Your task to perform on an android device: clear all cookies in the chrome app Image 0: 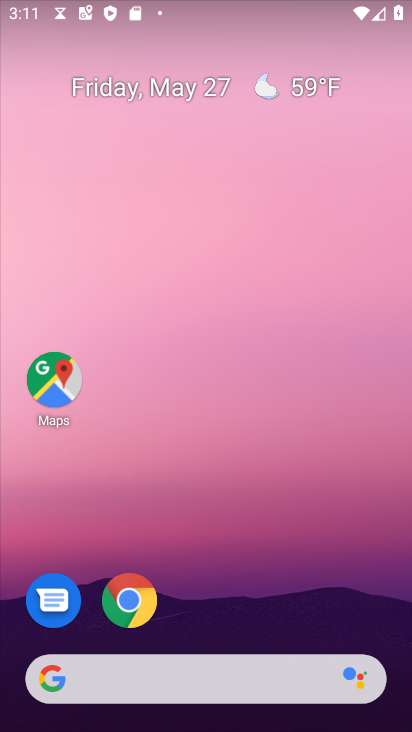
Step 0: click (130, 599)
Your task to perform on an android device: clear all cookies in the chrome app Image 1: 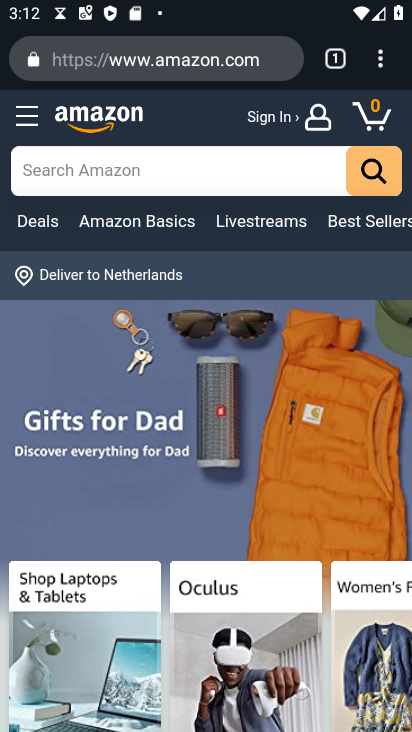
Step 1: click (385, 60)
Your task to perform on an android device: clear all cookies in the chrome app Image 2: 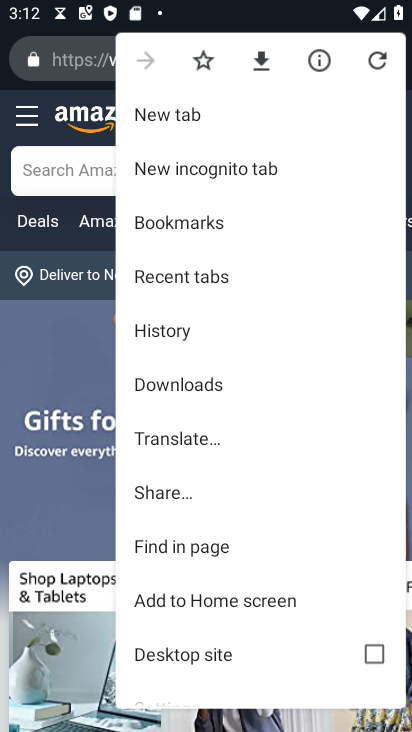
Step 2: drag from (197, 525) to (232, 415)
Your task to perform on an android device: clear all cookies in the chrome app Image 3: 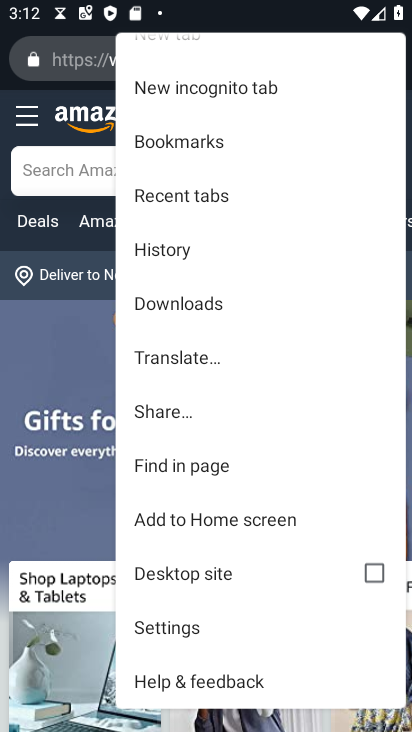
Step 3: click (186, 626)
Your task to perform on an android device: clear all cookies in the chrome app Image 4: 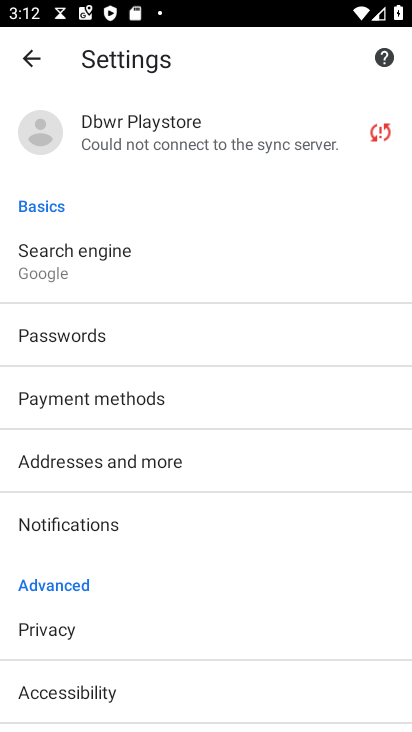
Step 4: click (65, 626)
Your task to perform on an android device: clear all cookies in the chrome app Image 5: 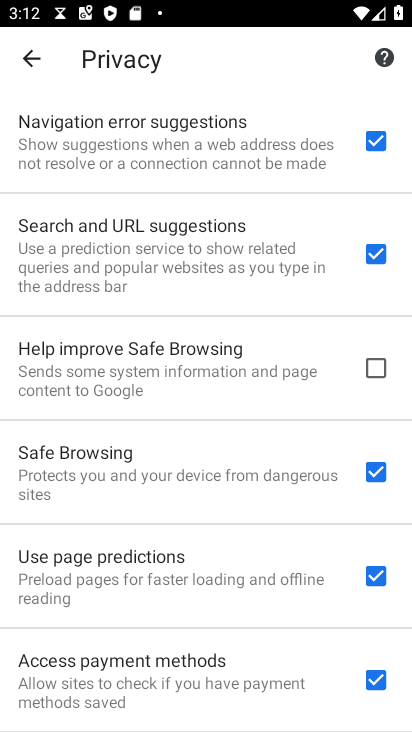
Step 5: drag from (107, 487) to (157, 336)
Your task to perform on an android device: clear all cookies in the chrome app Image 6: 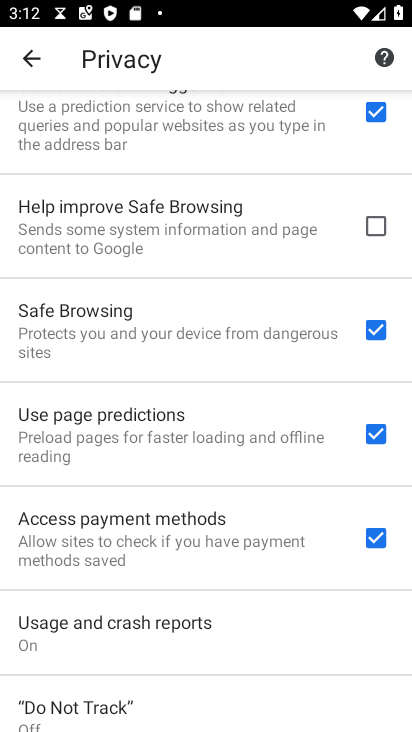
Step 6: drag from (130, 573) to (162, 438)
Your task to perform on an android device: clear all cookies in the chrome app Image 7: 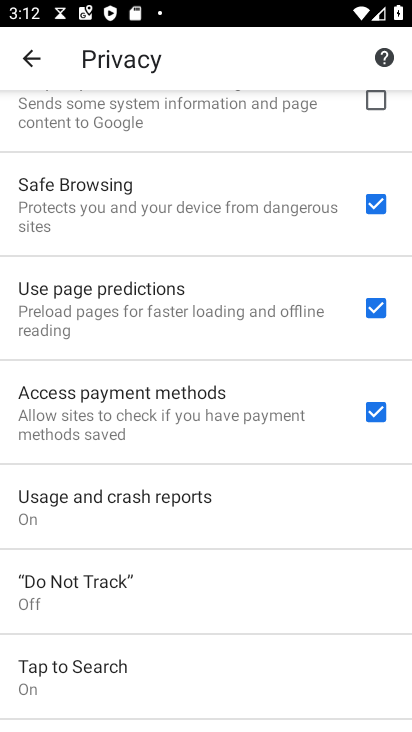
Step 7: drag from (134, 543) to (178, 461)
Your task to perform on an android device: clear all cookies in the chrome app Image 8: 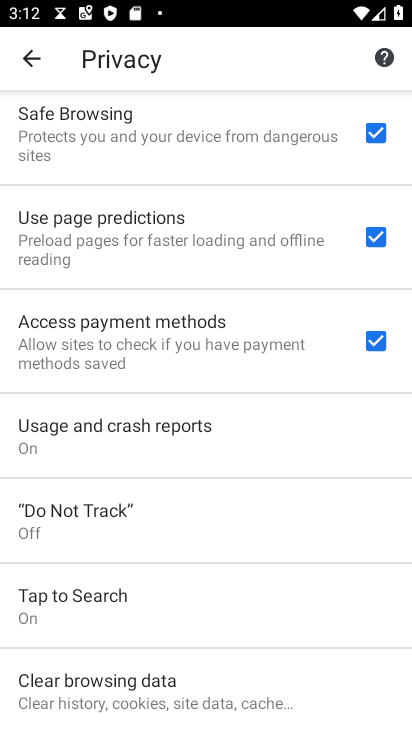
Step 8: drag from (133, 601) to (213, 493)
Your task to perform on an android device: clear all cookies in the chrome app Image 9: 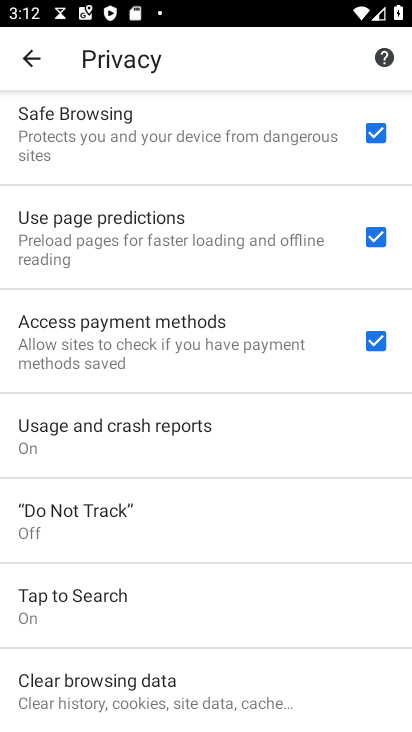
Step 9: click (112, 679)
Your task to perform on an android device: clear all cookies in the chrome app Image 10: 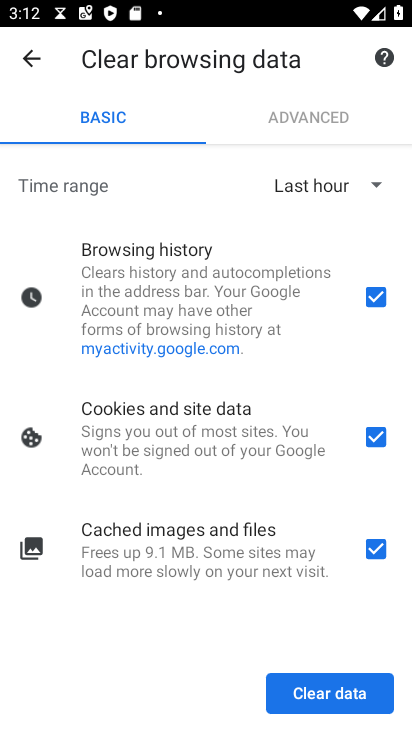
Step 10: click (373, 302)
Your task to perform on an android device: clear all cookies in the chrome app Image 11: 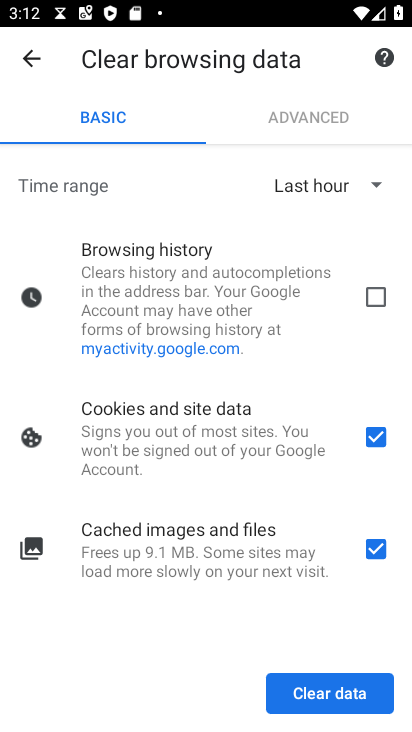
Step 11: click (366, 553)
Your task to perform on an android device: clear all cookies in the chrome app Image 12: 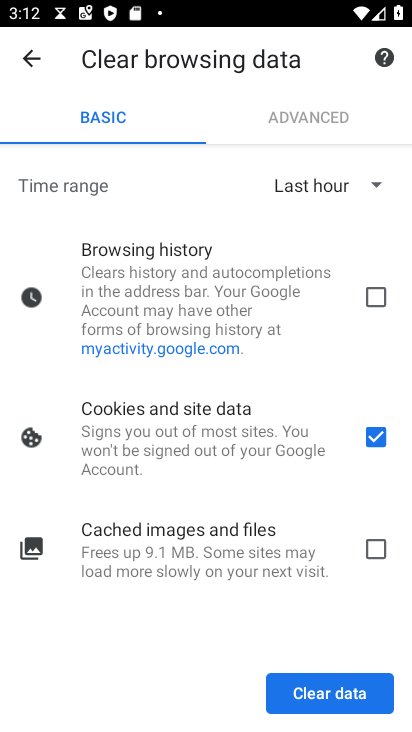
Step 12: click (338, 663)
Your task to perform on an android device: clear all cookies in the chrome app Image 13: 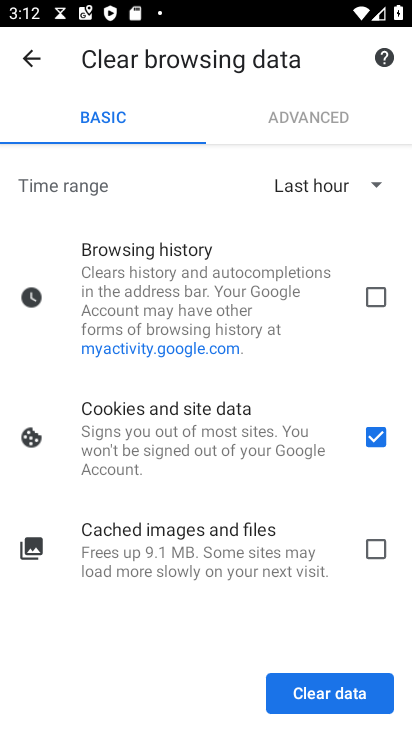
Step 13: click (341, 682)
Your task to perform on an android device: clear all cookies in the chrome app Image 14: 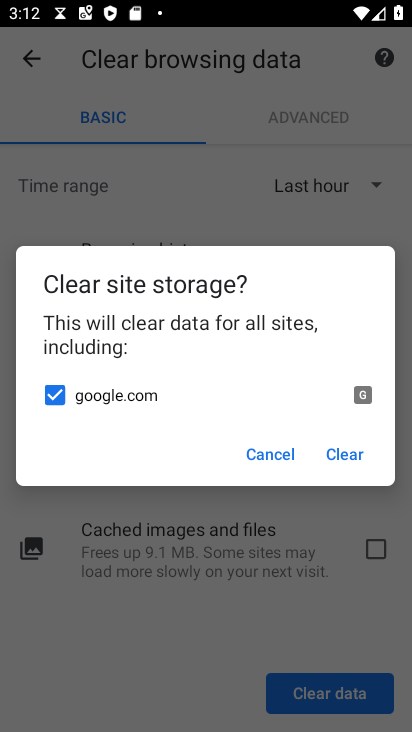
Step 14: click (346, 444)
Your task to perform on an android device: clear all cookies in the chrome app Image 15: 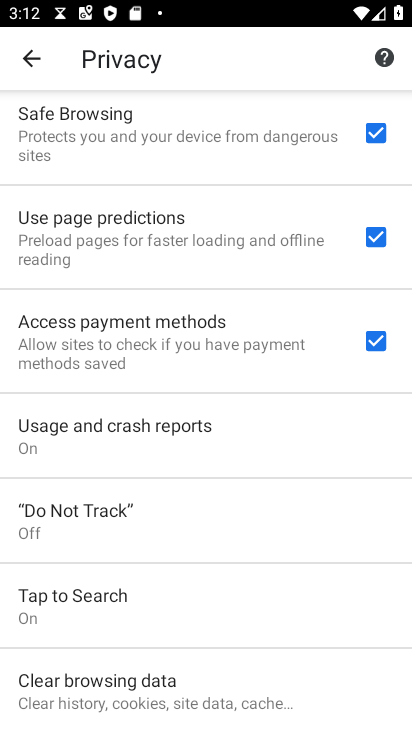
Step 15: task complete